Your task to perform on an android device: remove spam from my inbox in the gmail app Image 0: 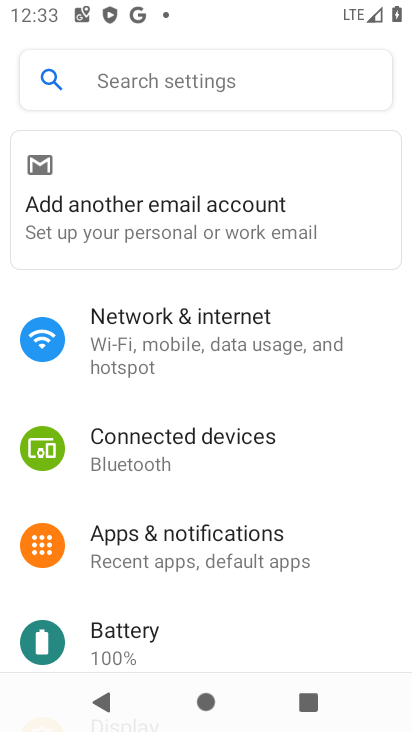
Step 0: press back button
Your task to perform on an android device: remove spam from my inbox in the gmail app Image 1: 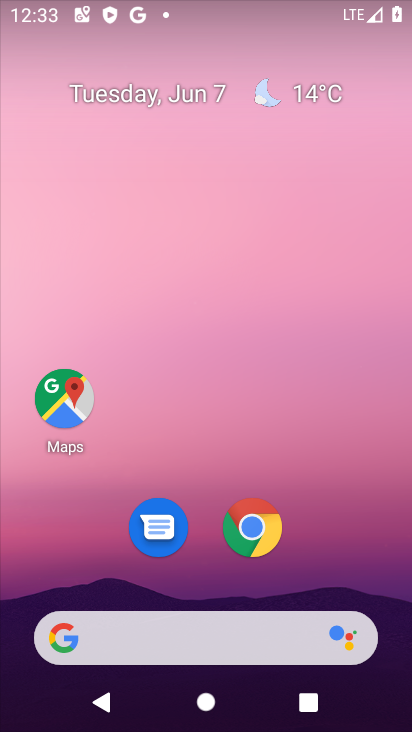
Step 1: drag from (354, 547) to (256, 19)
Your task to perform on an android device: remove spam from my inbox in the gmail app Image 2: 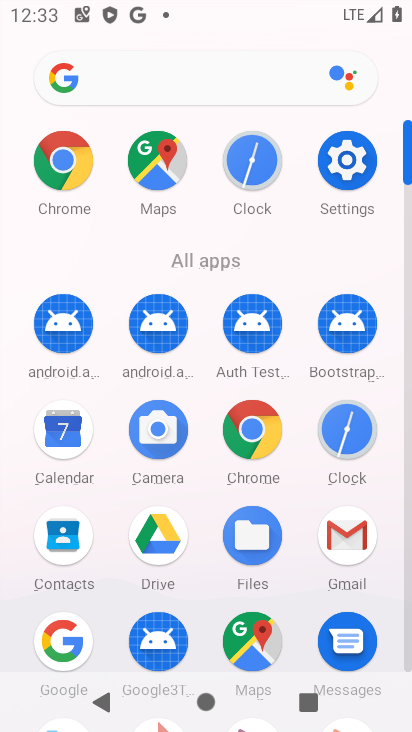
Step 2: click (348, 531)
Your task to perform on an android device: remove spam from my inbox in the gmail app Image 3: 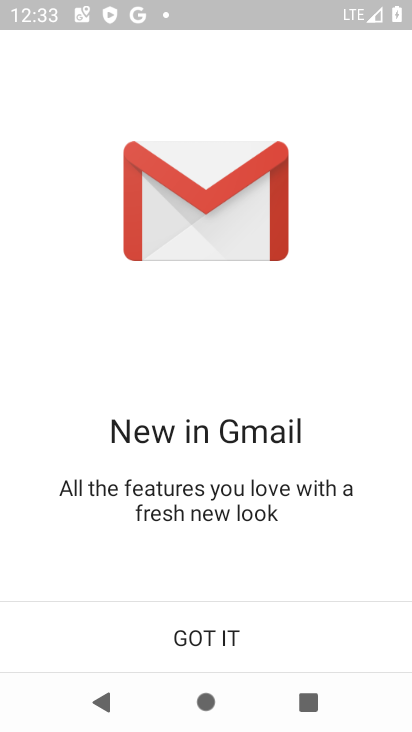
Step 3: click (244, 644)
Your task to perform on an android device: remove spam from my inbox in the gmail app Image 4: 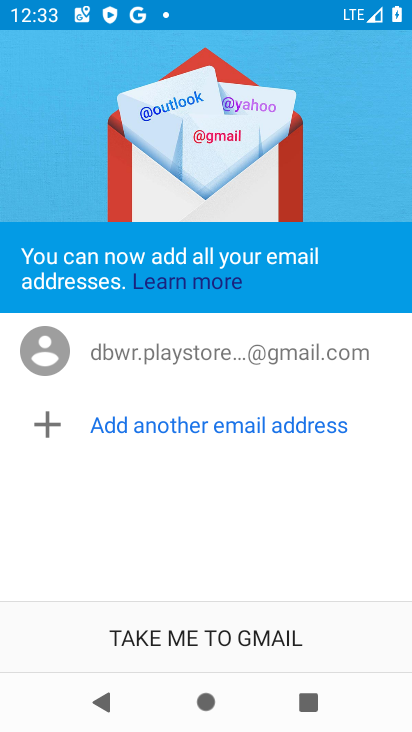
Step 4: click (244, 644)
Your task to perform on an android device: remove spam from my inbox in the gmail app Image 5: 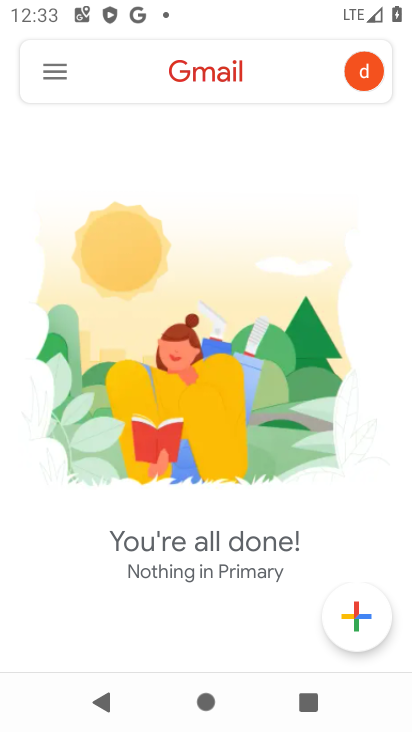
Step 5: click (65, 70)
Your task to perform on an android device: remove spam from my inbox in the gmail app Image 6: 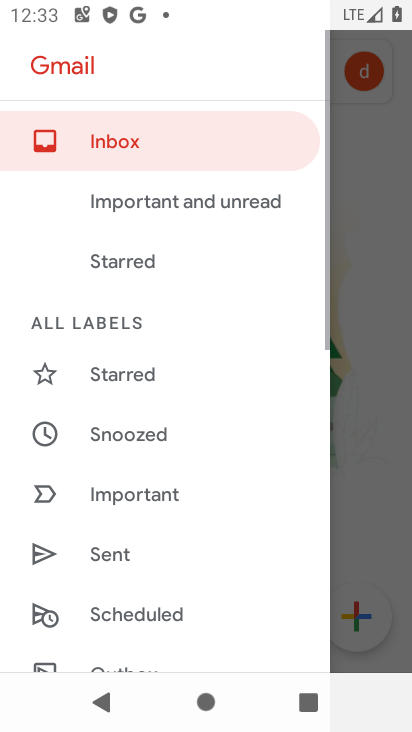
Step 6: drag from (167, 622) to (179, 222)
Your task to perform on an android device: remove spam from my inbox in the gmail app Image 7: 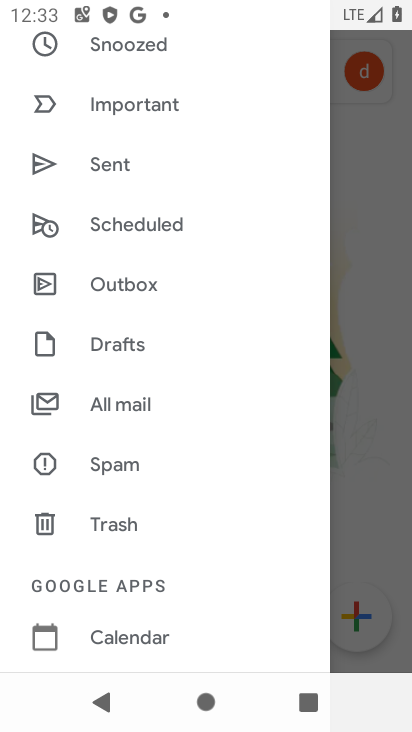
Step 7: click (111, 474)
Your task to perform on an android device: remove spam from my inbox in the gmail app Image 8: 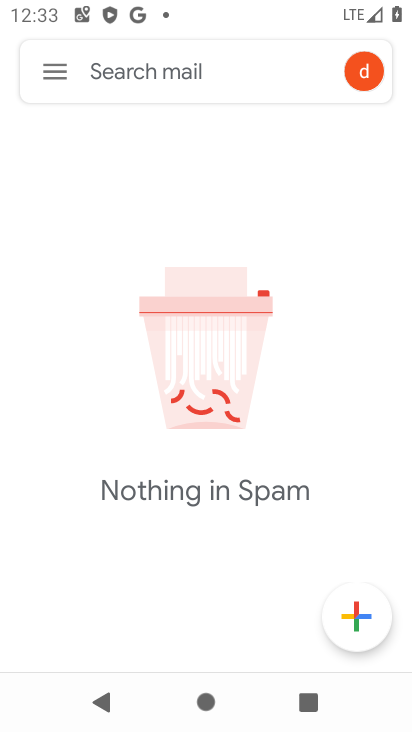
Step 8: task complete